Your task to perform on an android device: Open privacy settings Image 0: 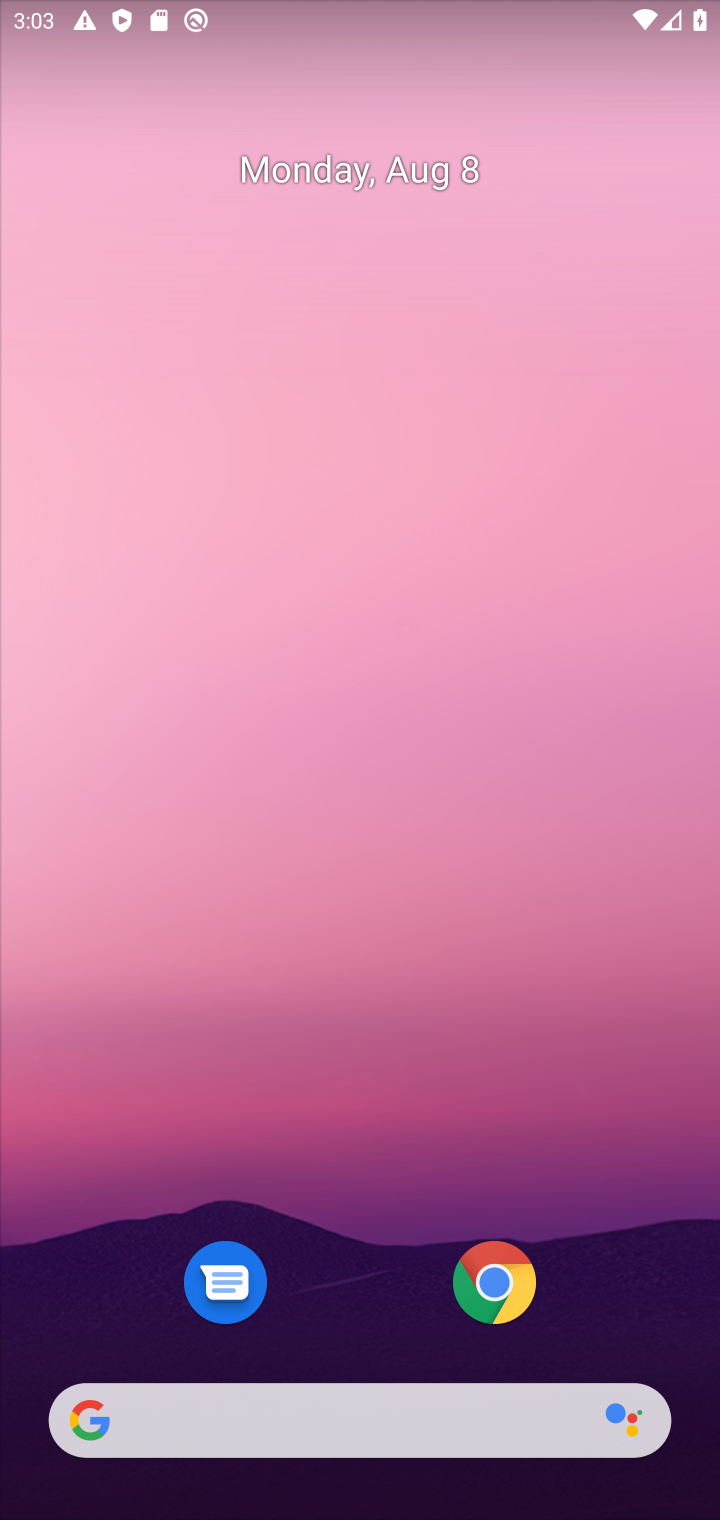
Step 0: drag from (260, 1166) to (409, 5)
Your task to perform on an android device: Open privacy settings Image 1: 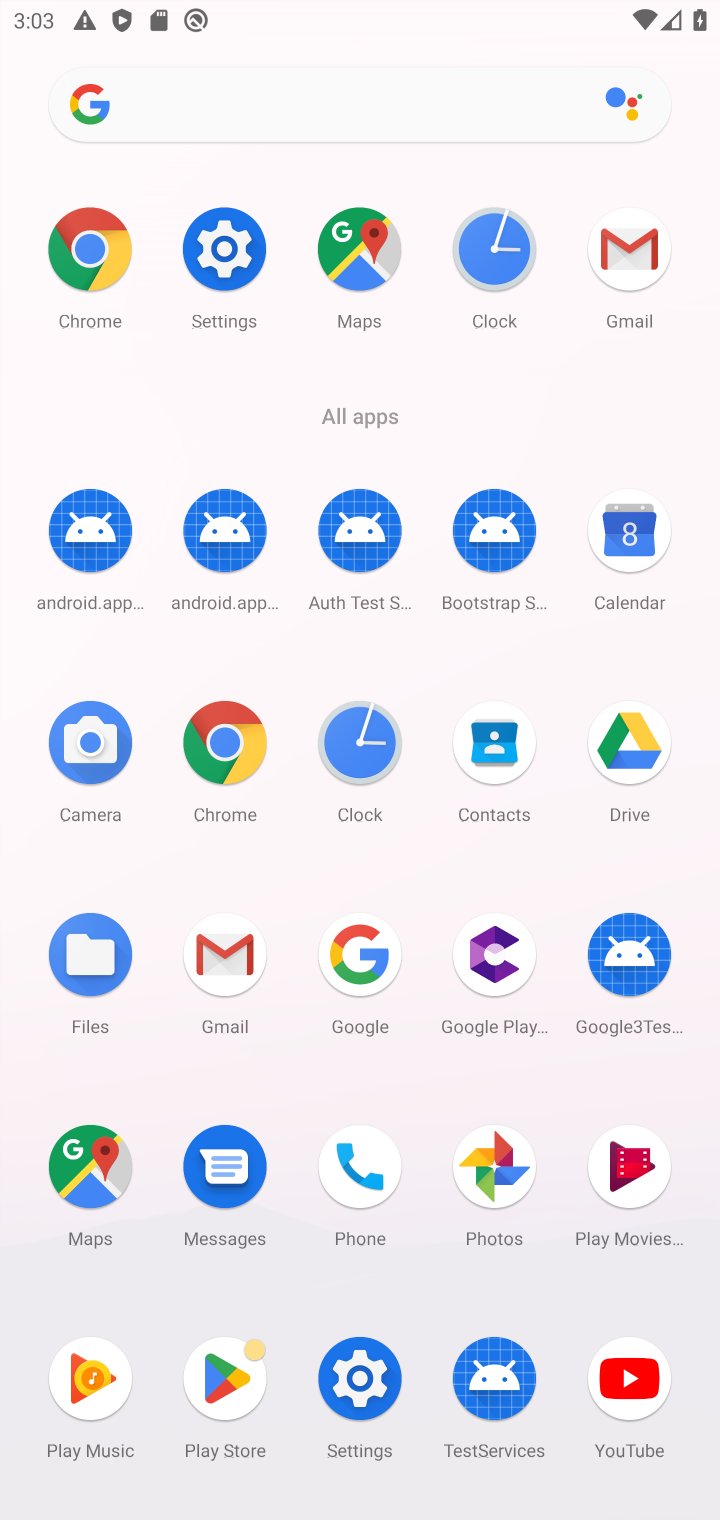
Step 1: click (222, 248)
Your task to perform on an android device: Open privacy settings Image 2: 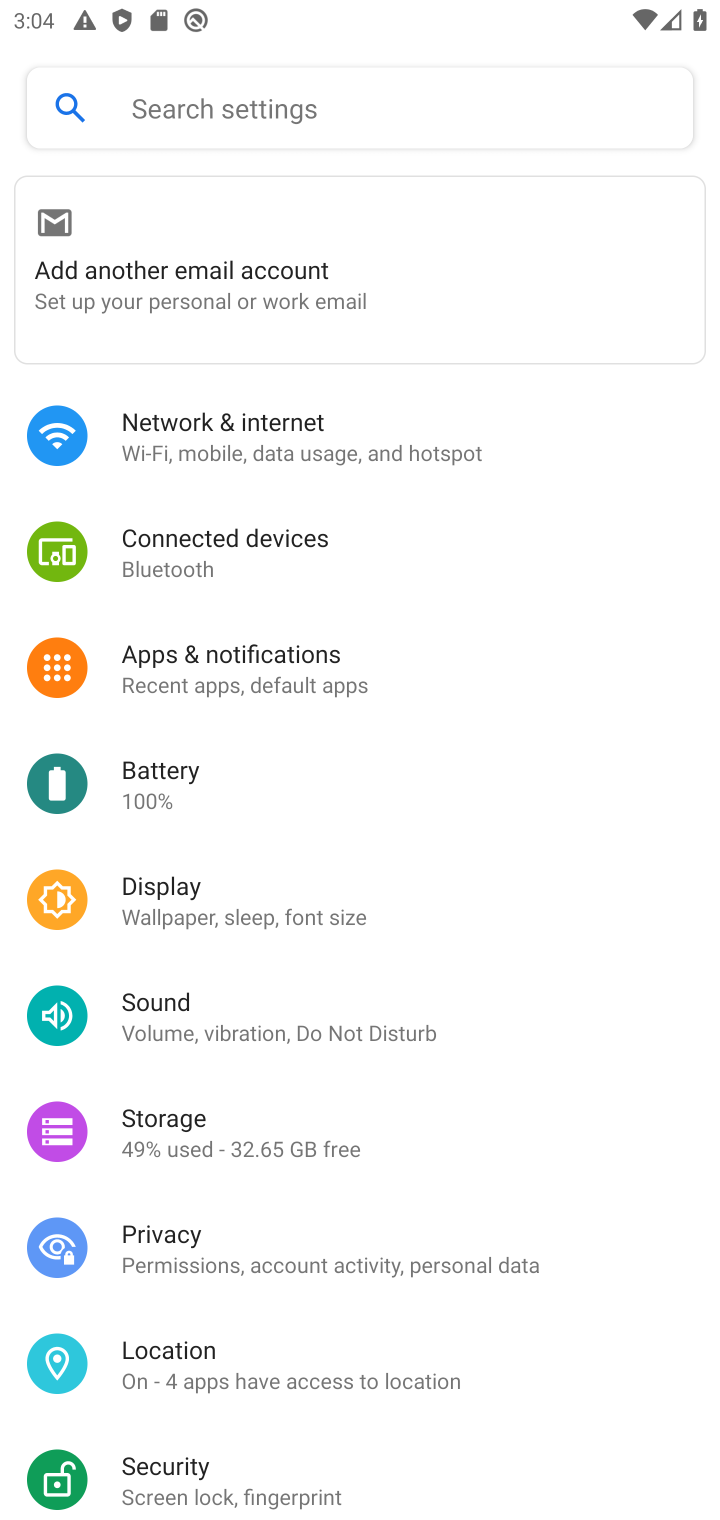
Step 2: click (194, 1255)
Your task to perform on an android device: Open privacy settings Image 3: 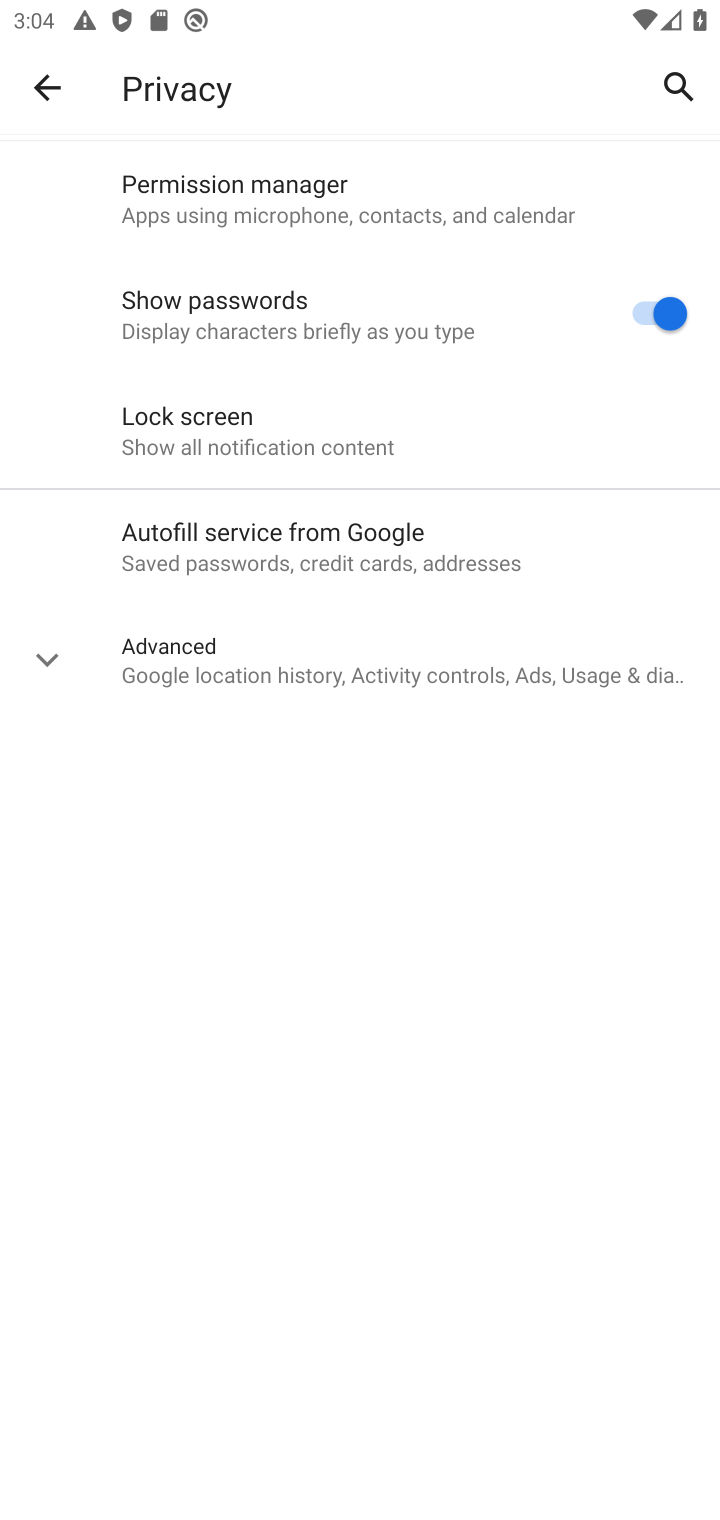
Step 3: task complete